Your task to perform on an android device: open chrome and create a bookmark for the current page Image 0: 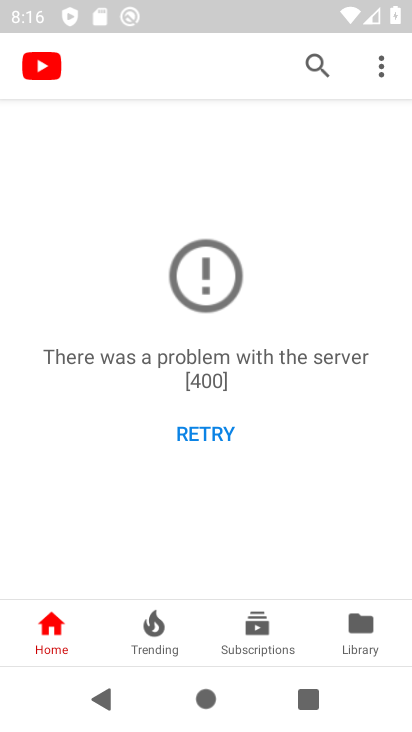
Step 0: press back button
Your task to perform on an android device: open chrome and create a bookmark for the current page Image 1: 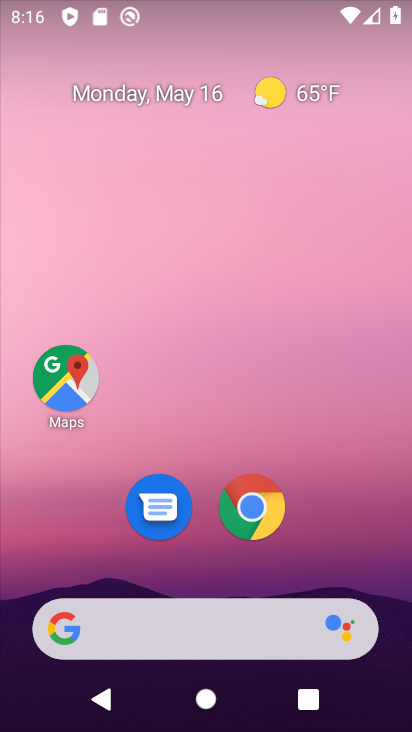
Step 1: click (274, 519)
Your task to perform on an android device: open chrome and create a bookmark for the current page Image 2: 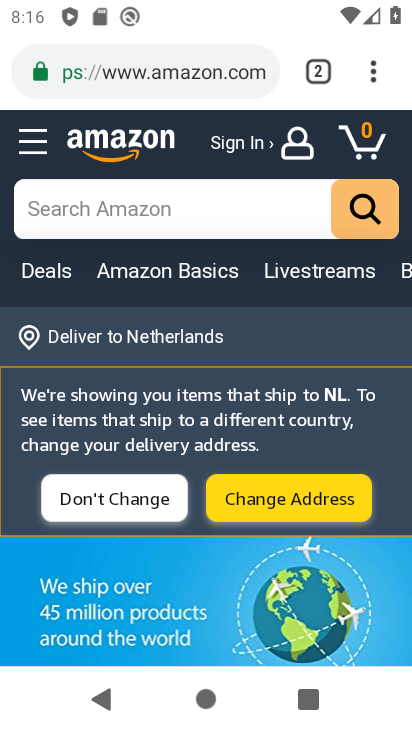
Step 2: task complete